Your task to perform on an android device: change the clock style Image 0: 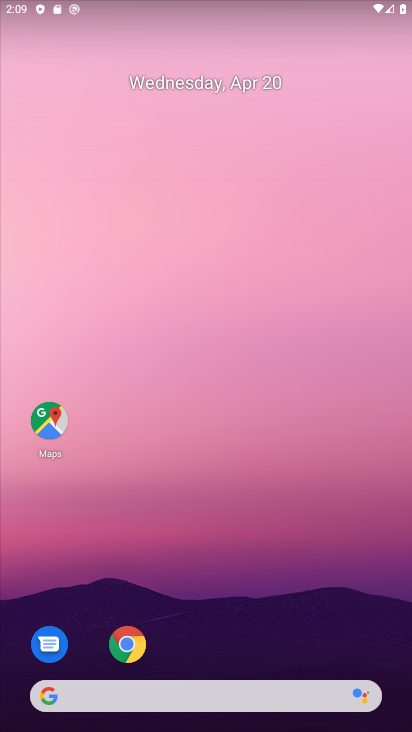
Step 0: drag from (365, 648) to (268, 185)
Your task to perform on an android device: change the clock style Image 1: 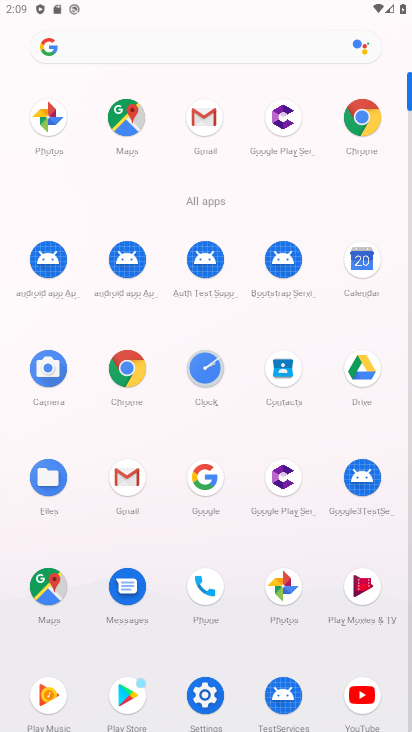
Step 1: click (409, 674)
Your task to perform on an android device: change the clock style Image 2: 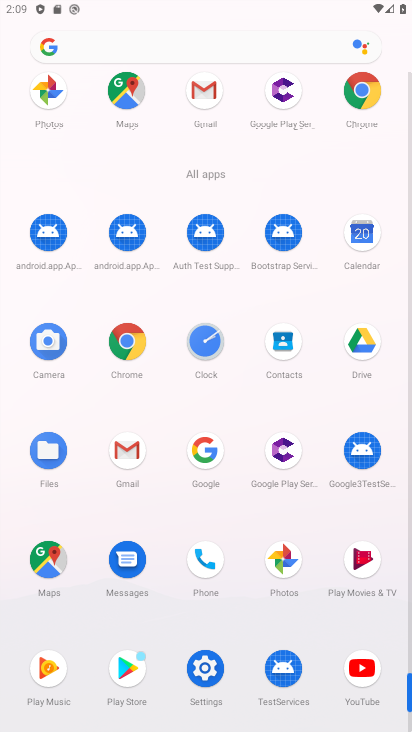
Step 2: click (202, 336)
Your task to perform on an android device: change the clock style Image 3: 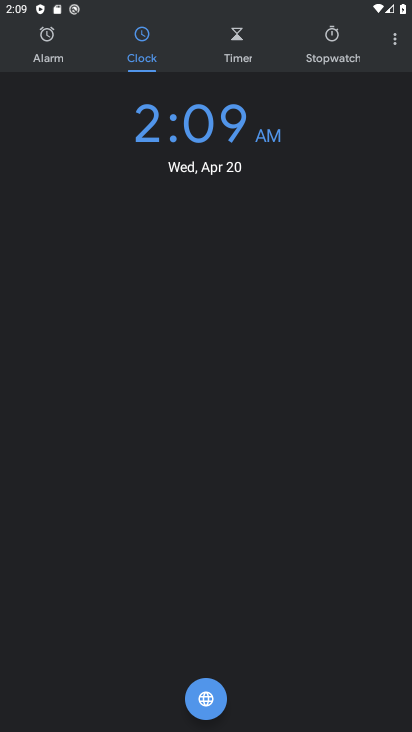
Step 3: click (396, 45)
Your task to perform on an android device: change the clock style Image 4: 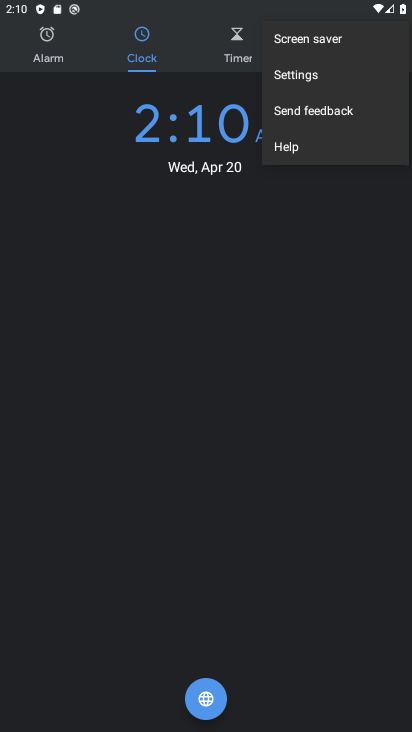
Step 4: click (300, 74)
Your task to perform on an android device: change the clock style Image 5: 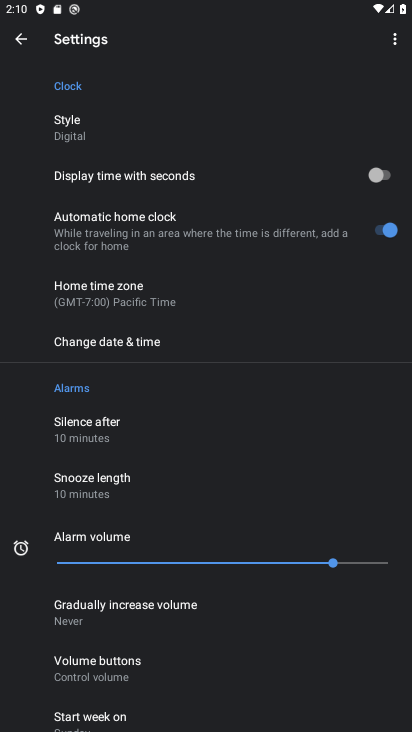
Step 5: click (74, 128)
Your task to perform on an android device: change the clock style Image 6: 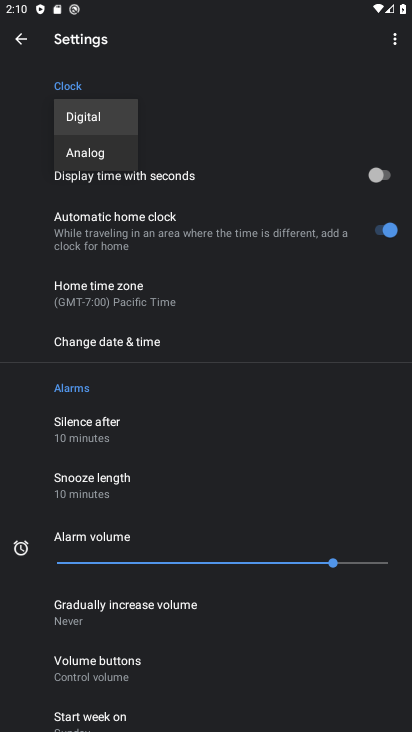
Step 6: click (86, 158)
Your task to perform on an android device: change the clock style Image 7: 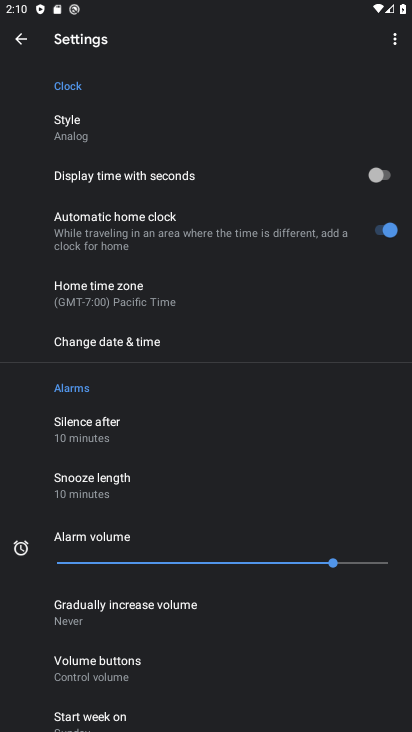
Step 7: task complete